Your task to perform on an android device: Go to internet settings Image 0: 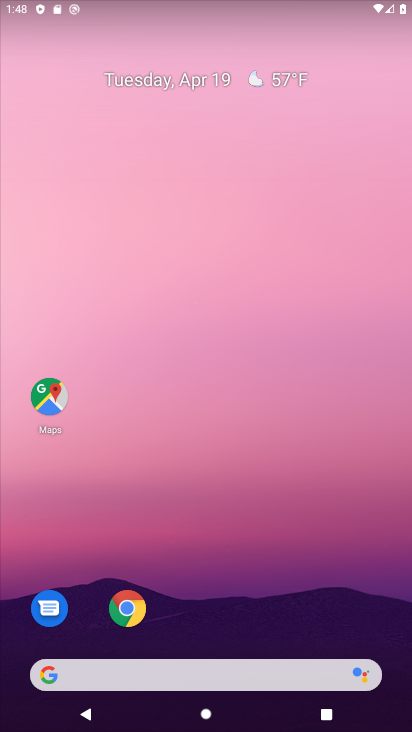
Step 0: press home button
Your task to perform on an android device: Go to internet settings Image 1: 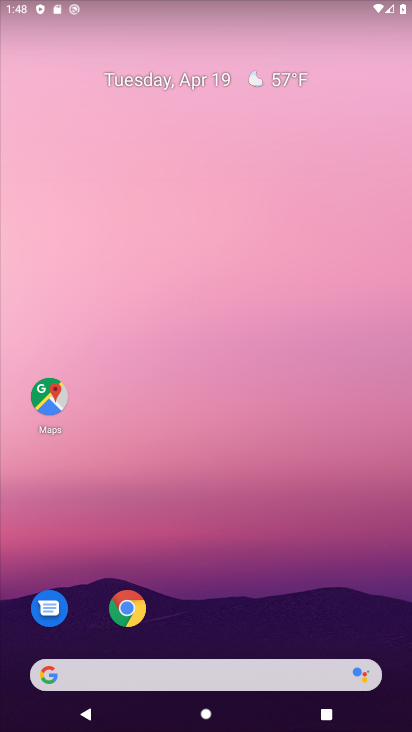
Step 1: drag from (225, 548) to (272, 156)
Your task to perform on an android device: Go to internet settings Image 2: 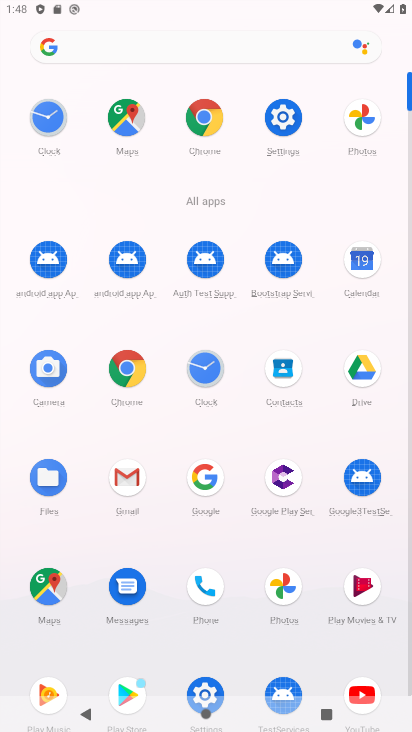
Step 2: click (288, 125)
Your task to perform on an android device: Go to internet settings Image 3: 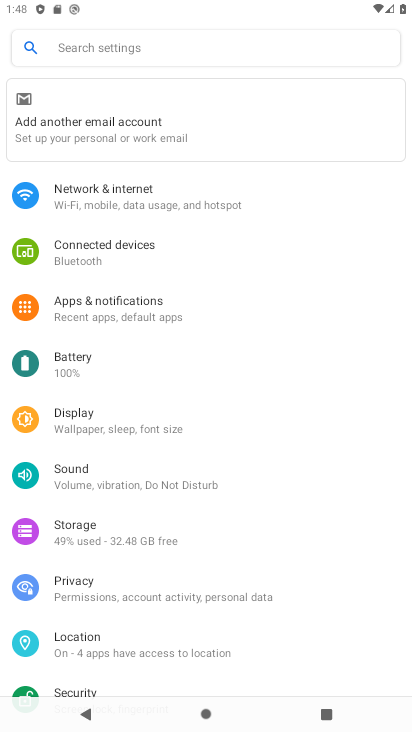
Step 3: click (102, 192)
Your task to perform on an android device: Go to internet settings Image 4: 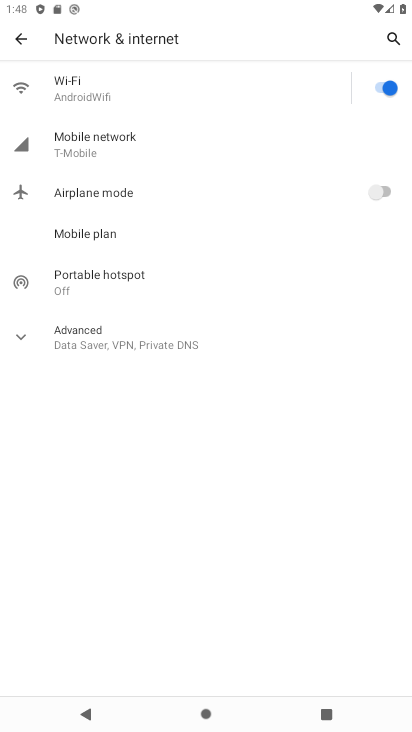
Step 4: click (120, 147)
Your task to perform on an android device: Go to internet settings Image 5: 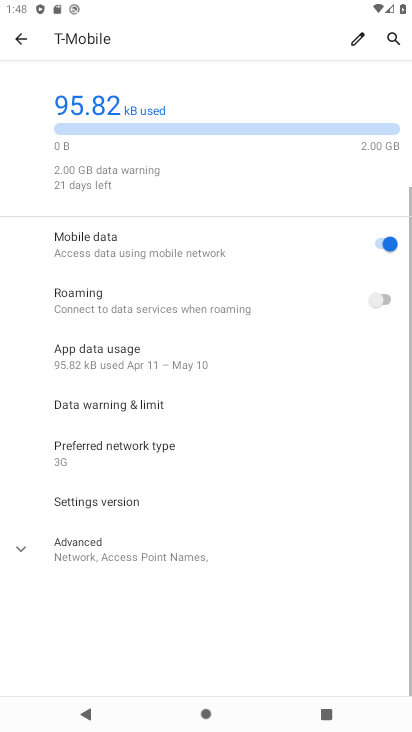
Step 5: task complete